Your task to perform on an android device: Show me recent news Image 0: 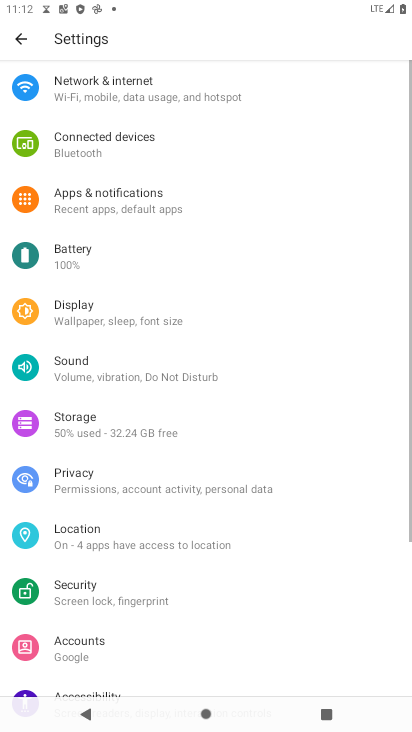
Step 0: press home button
Your task to perform on an android device: Show me recent news Image 1: 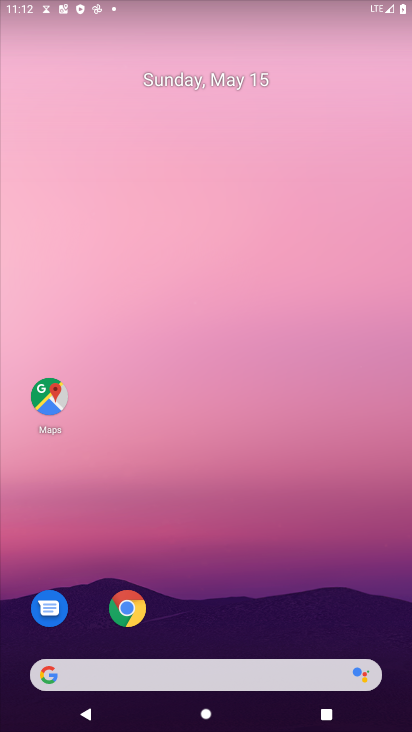
Step 1: drag from (282, 501) to (2, 192)
Your task to perform on an android device: Show me recent news Image 2: 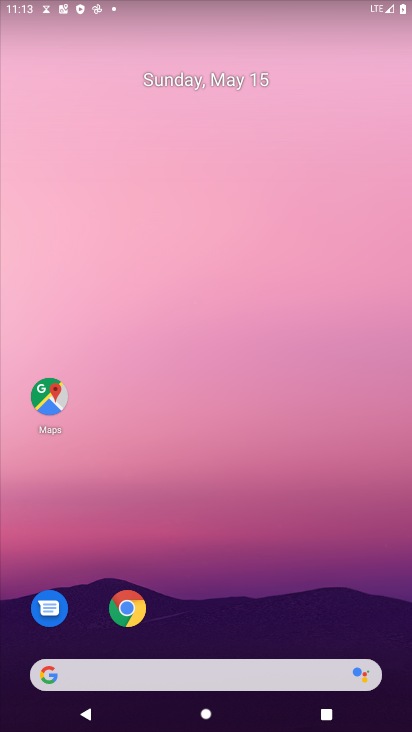
Step 2: drag from (296, 600) to (142, 28)
Your task to perform on an android device: Show me recent news Image 3: 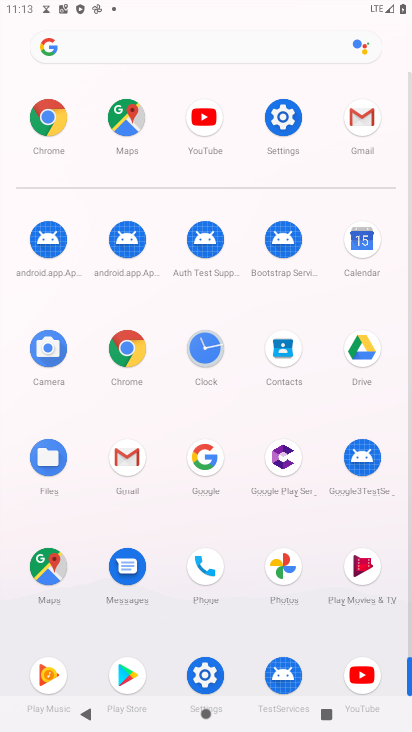
Step 3: click (46, 110)
Your task to perform on an android device: Show me recent news Image 4: 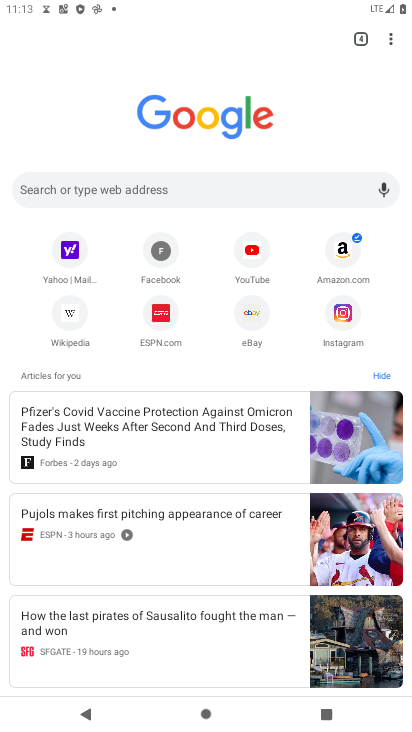
Step 4: task complete